Your task to perform on an android device: Open settings Image 0: 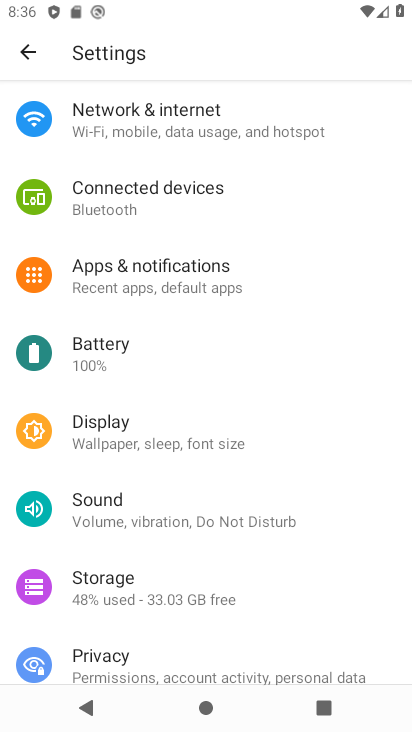
Step 0: task complete